Your task to perform on an android device: add a label to a message in the gmail app Image 0: 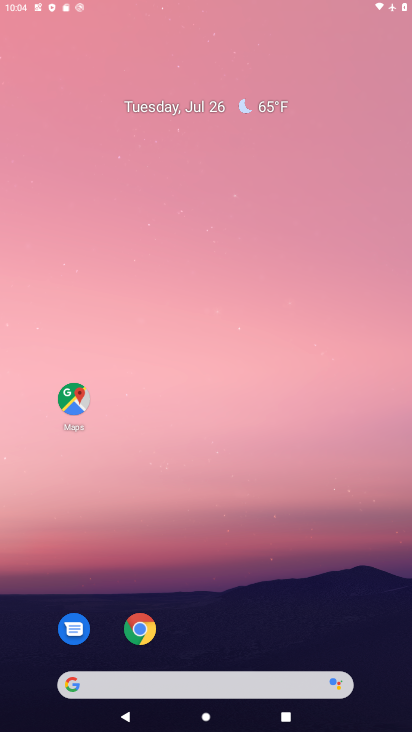
Step 0: click (355, 87)
Your task to perform on an android device: add a label to a message in the gmail app Image 1: 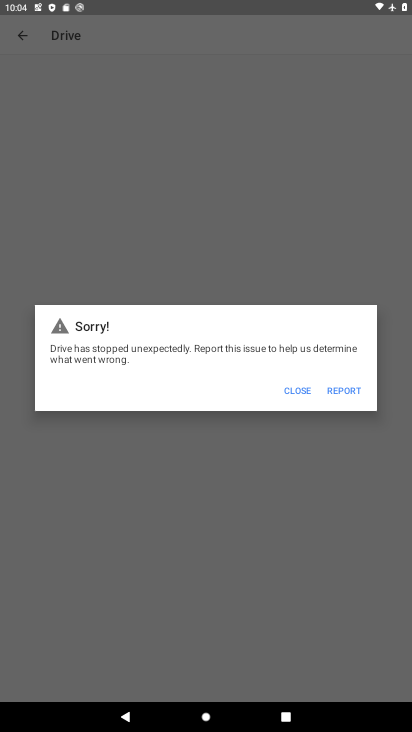
Step 1: press home button
Your task to perform on an android device: add a label to a message in the gmail app Image 2: 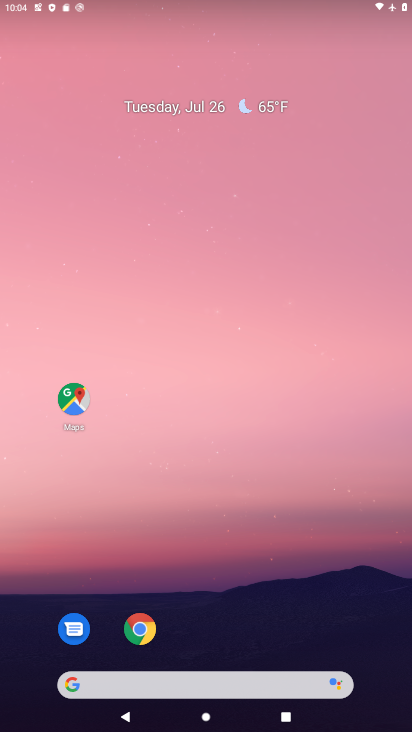
Step 2: drag from (336, 605) to (339, 96)
Your task to perform on an android device: add a label to a message in the gmail app Image 3: 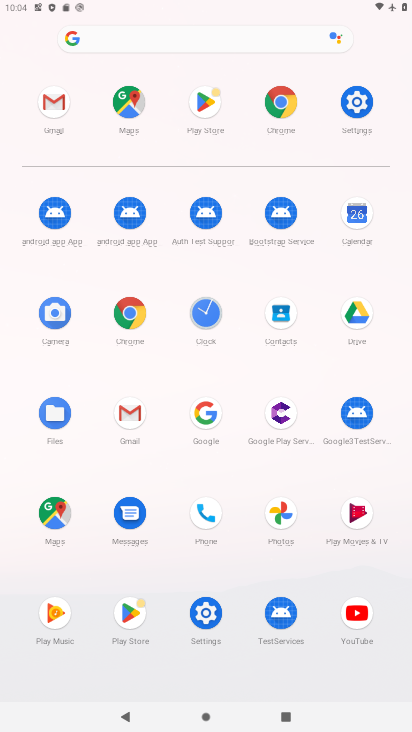
Step 3: click (62, 105)
Your task to perform on an android device: add a label to a message in the gmail app Image 4: 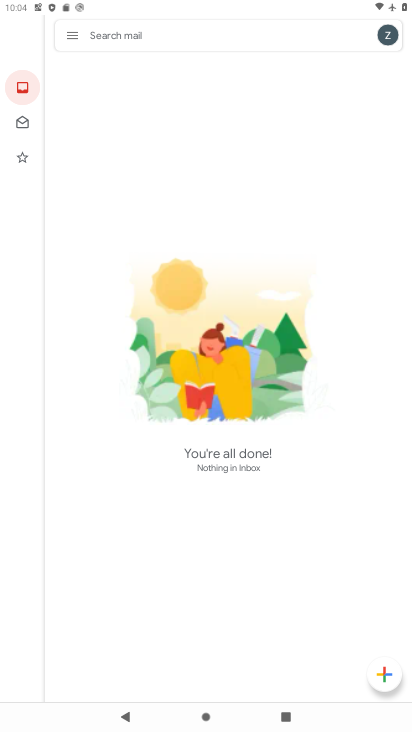
Step 4: click (75, 33)
Your task to perform on an android device: add a label to a message in the gmail app Image 5: 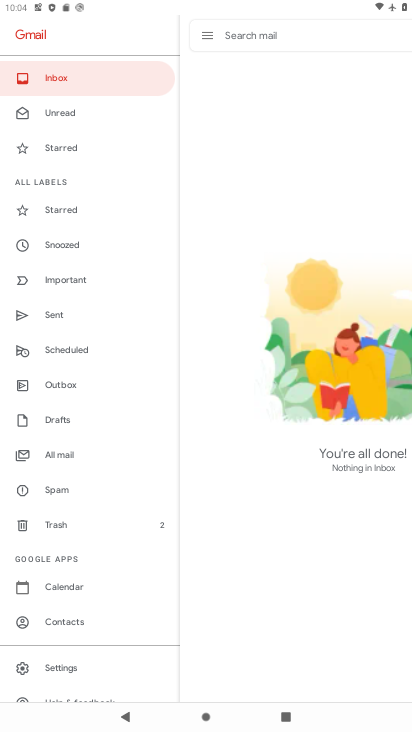
Step 5: click (69, 456)
Your task to perform on an android device: add a label to a message in the gmail app Image 6: 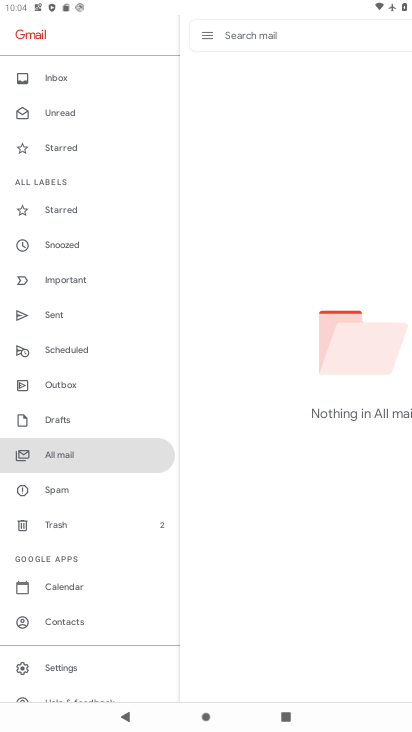
Step 6: task complete